Your task to perform on an android device: Go to eBay Image 0: 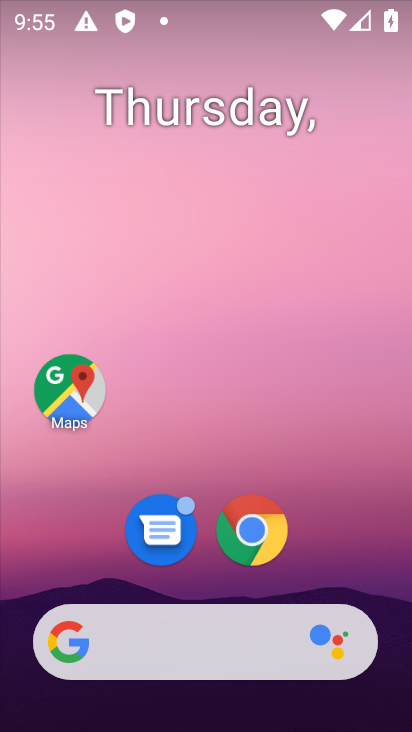
Step 0: click (70, 637)
Your task to perform on an android device: Go to eBay Image 1: 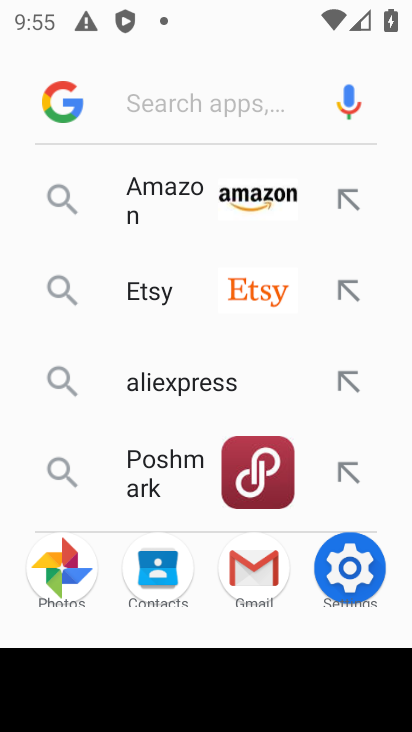
Step 1: type "eBay"
Your task to perform on an android device: Go to eBay Image 2: 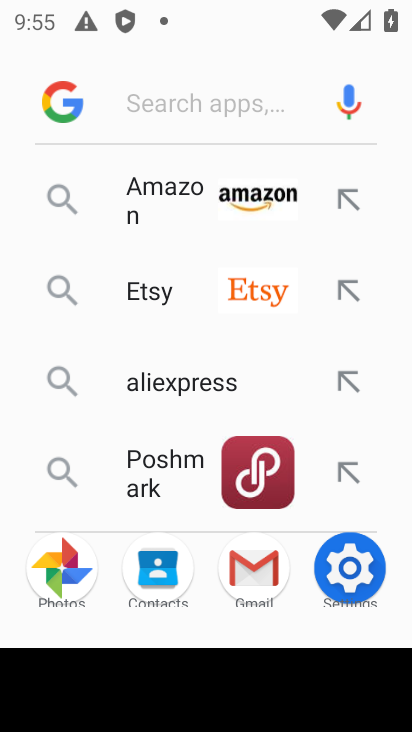
Step 2: click (152, 96)
Your task to perform on an android device: Go to eBay Image 3: 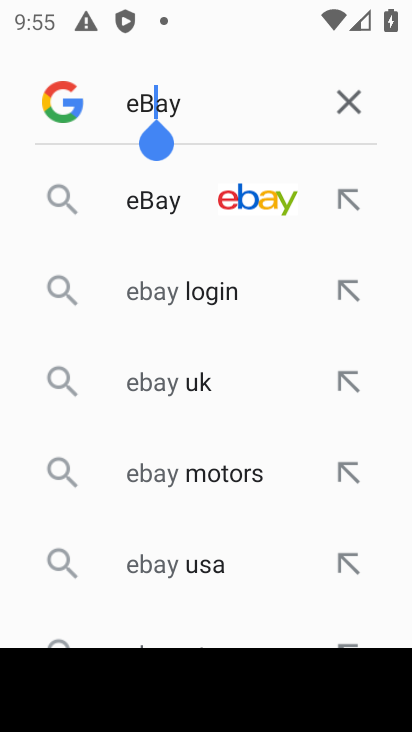
Step 3: press enter
Your task to perform on an android device: Go to eBay Image 4: 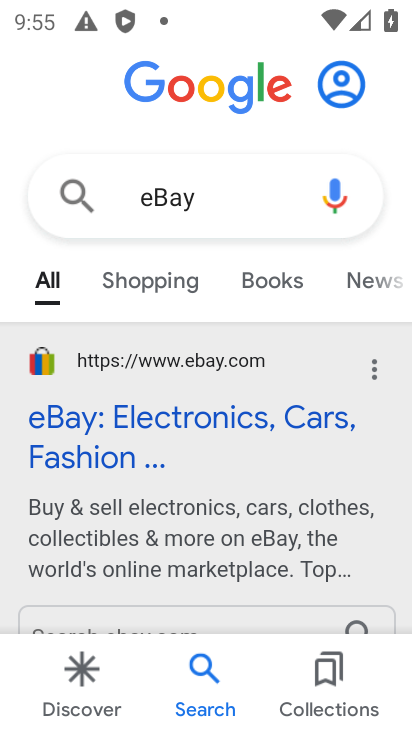
Step 4: click (82, 422)
Your task to perform on an android device: Go to eBay Image 5: 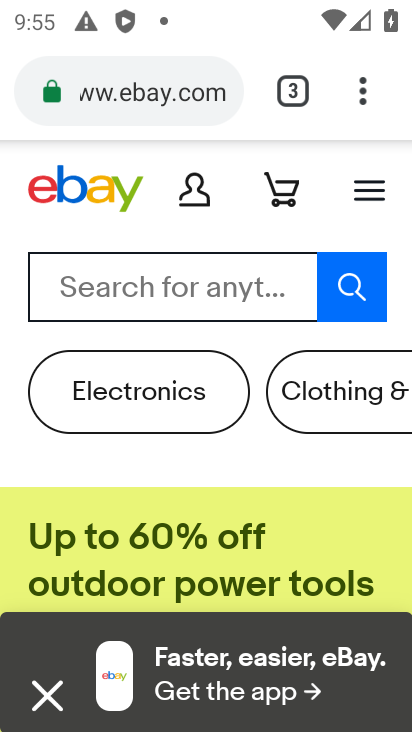
Step 5: task complete